Your task to perform on an android device: Open maps Image 0: 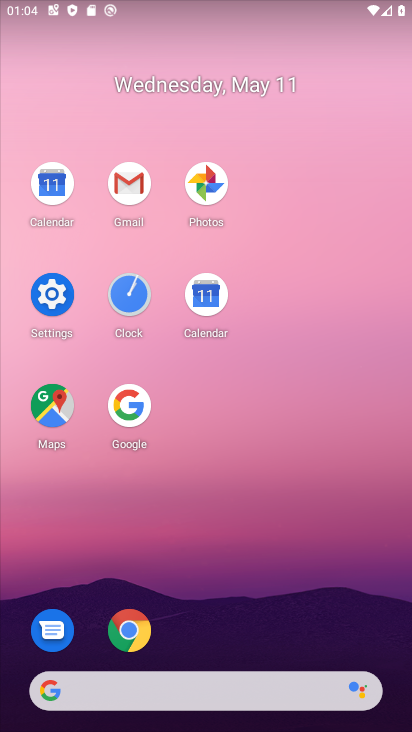
Step 0: click (59, 410)
Your task to perform on an android device: Open maps Image 1: 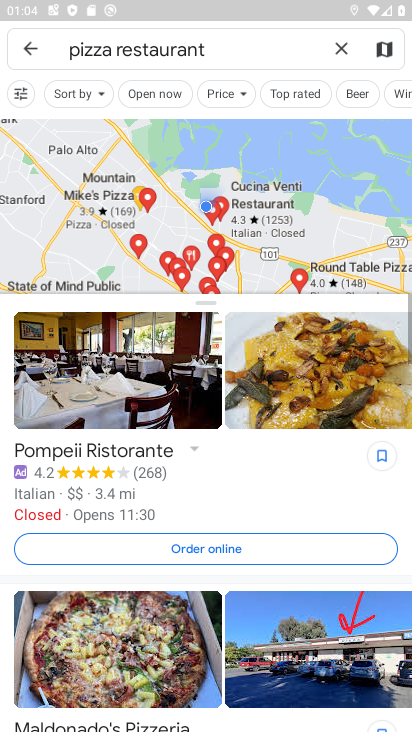
Step 1: task complete